Your task to perform on an android device: Go to Wikipedia Image 0: 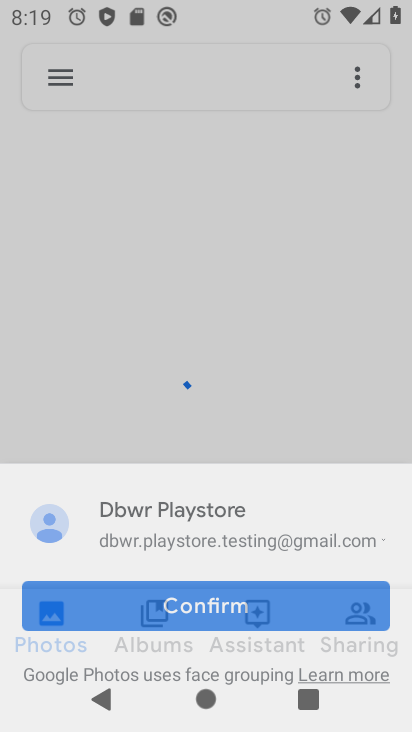
Step 0: press home button
Your task to perform on an android device: Go to Wikipedia Image 1: 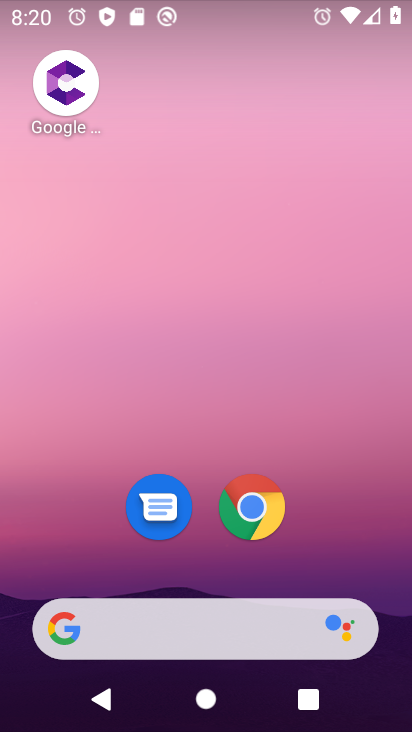
Step 1: click (249, 519)
Your task to perform on an android device: Go to Wikipedia Image 2: 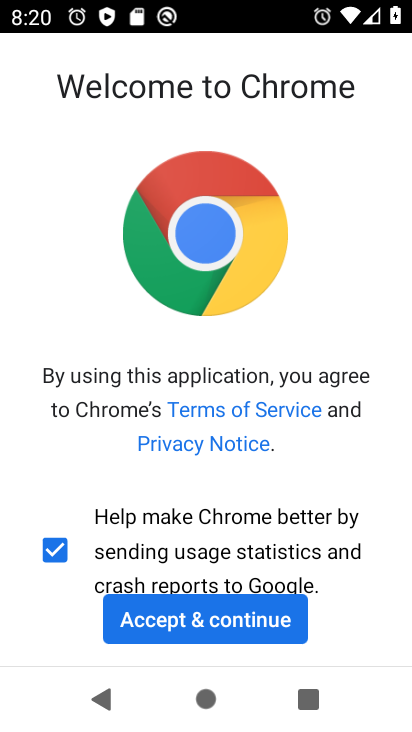
Step 2: click (181, 622)
Your task to perform on an android device: Go to Wikipedia Image 3: 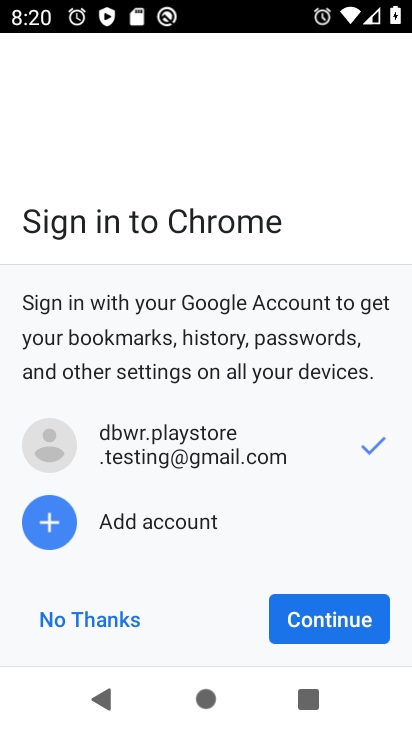
Step 3: click (286, 608)
Your task to perform on an android device: Go to Wikipedia Image 4: 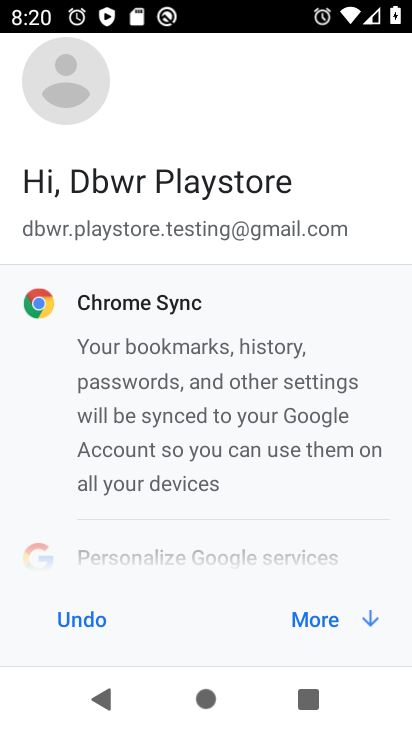
Step 4: click (286, 608)
Your task to perform on an android device: Go to Wikipedia Image 5: 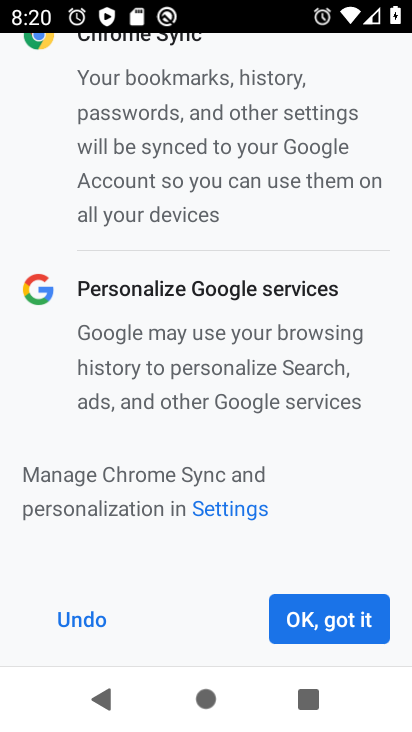
Step 5: click (286, 608)
Your task to perform on an android device: Go to Wikipedia Image 6: 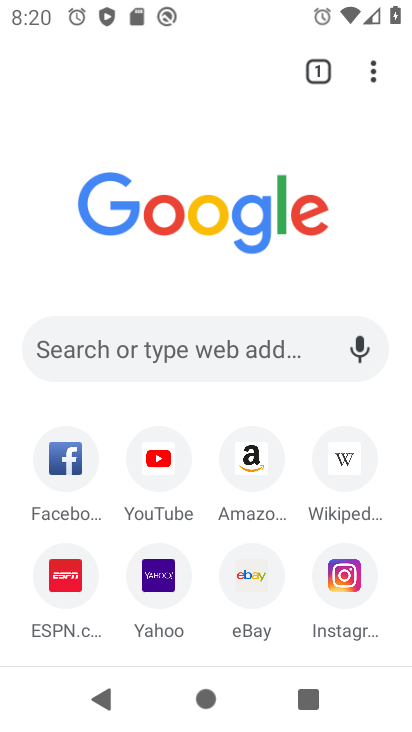
Step 6: click (351, 477)
Your task to perform on an android device: Go to Wikipedia Image 7: 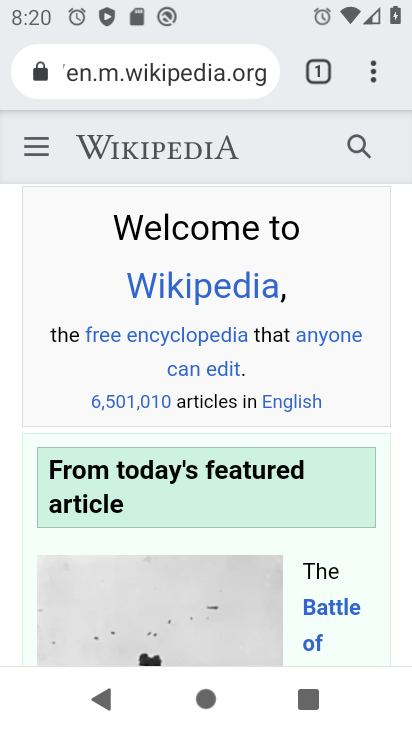
Step 7: task complete